Your task to perform on an android device: add a label to a message in the gmail app Image 0: 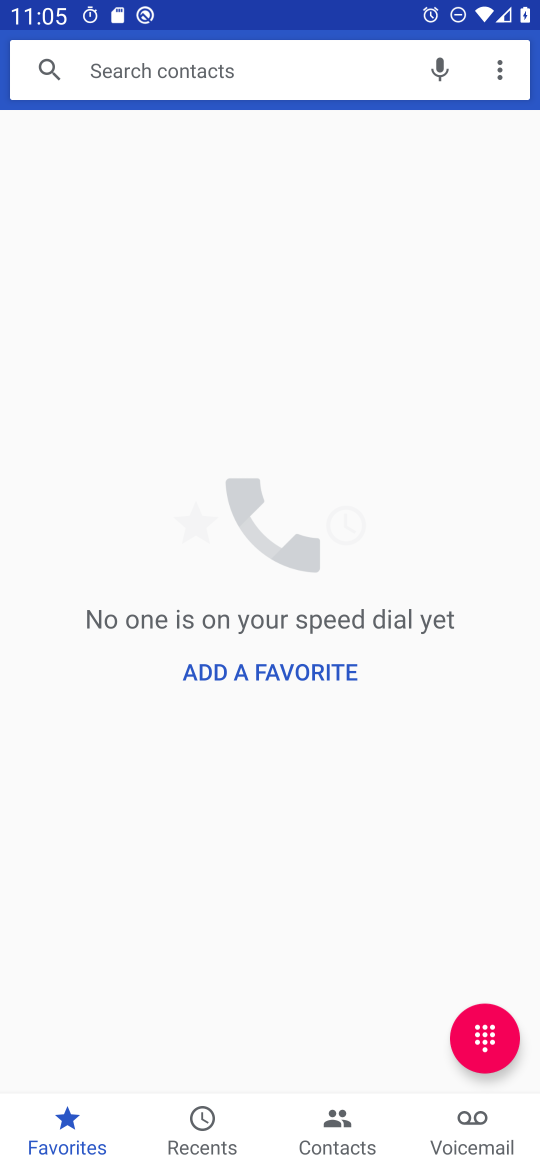
Step 0: press home button
Your task to perform on an android device: add a label to a message in the gmail app Image 1: 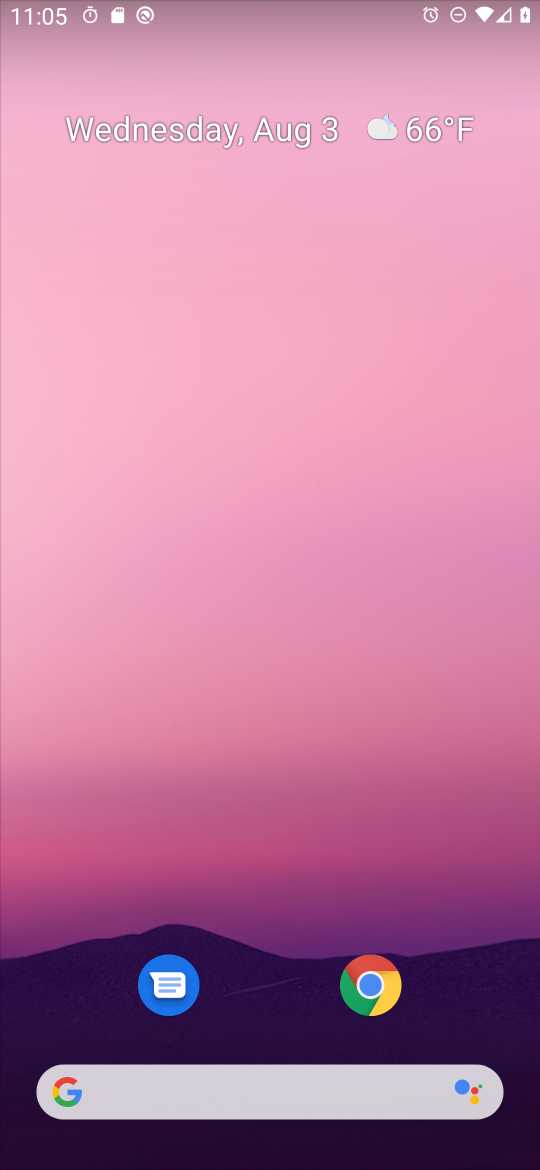
Step 1: drag from (246, 895) to (238, 404)
Your task to perform on an android device: add a label to a message in the gmail app Image 2: 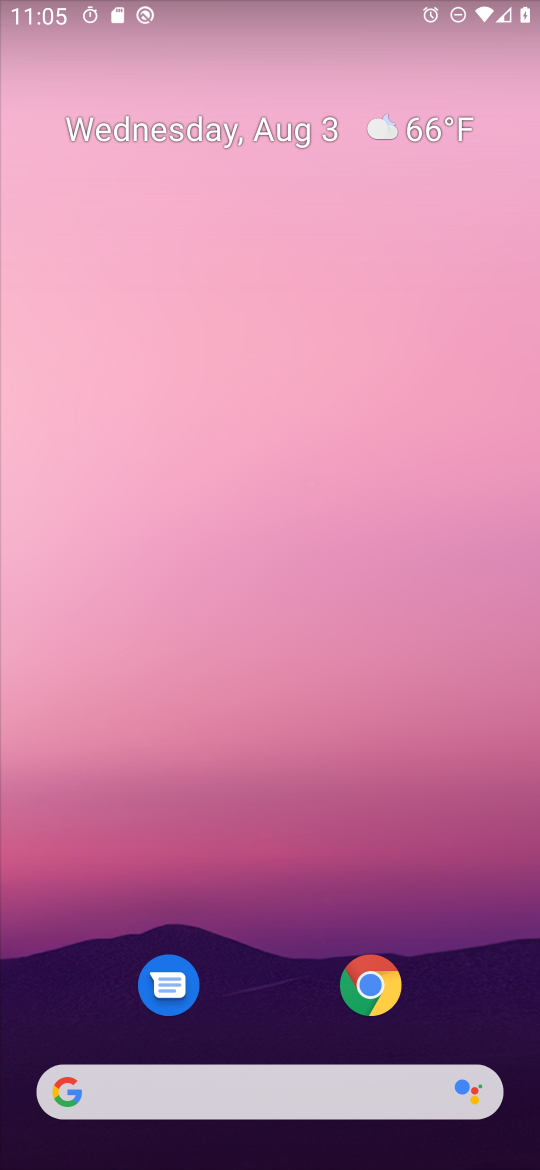
Step 2: drag from (280, 802) to (280, 267)
Your task to perform on an android device: add a label to a message in the gmail app Image 3: 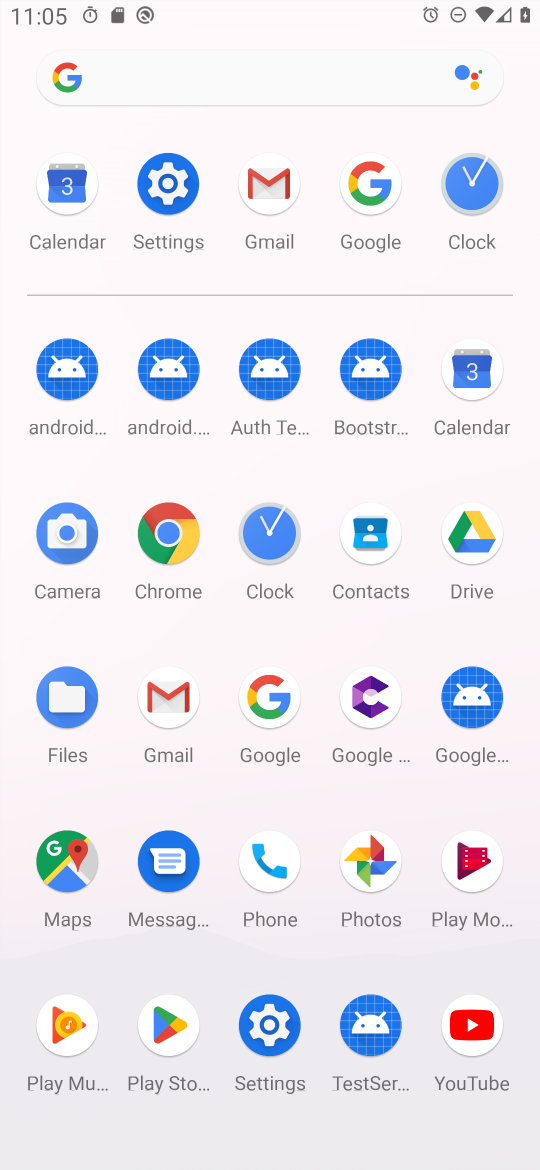
Step 3: click (263, 193)
Your task to perform on an android device: add a label to a message in the gmail app Image 4: 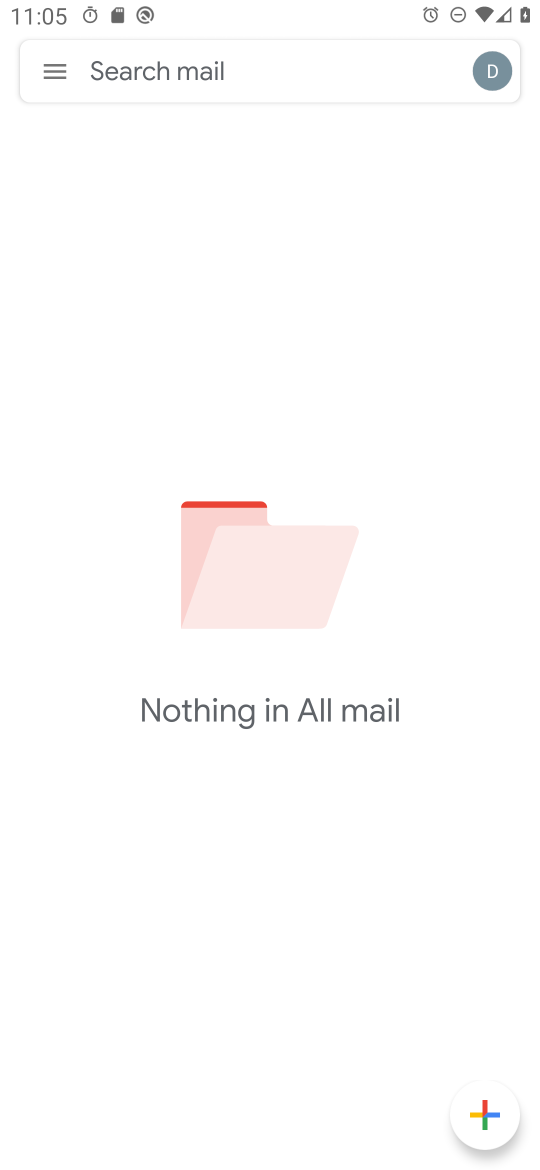
Step 4: click (69, 77)
Your task to perform on an android device: add a label to a message in the gmail app Image 5: 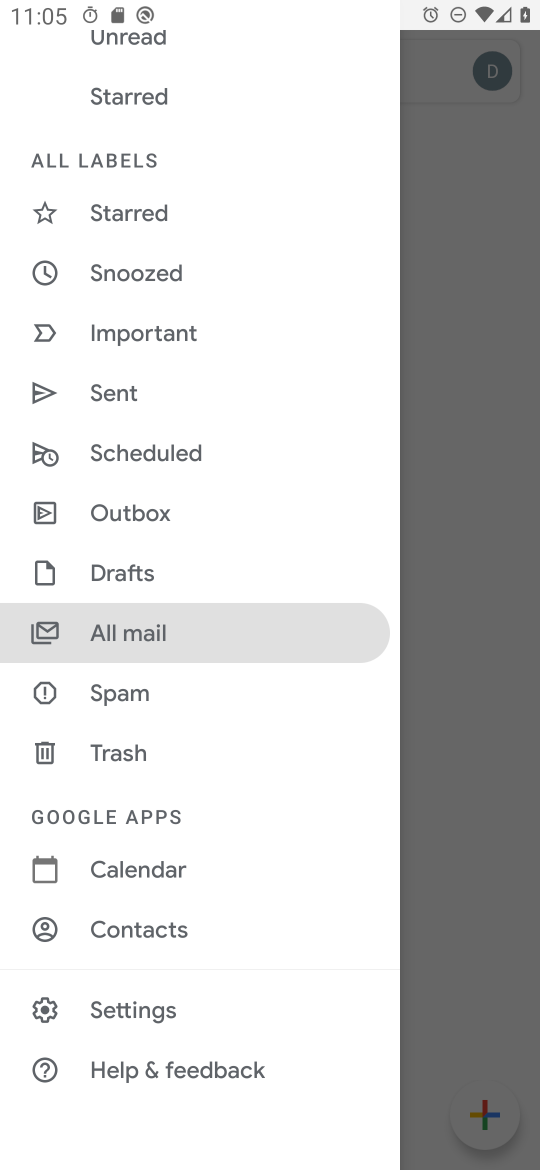
Step 5: click (182, 640)
Your task to perform on an android device: add a label to a message in the gmail app Image 6: 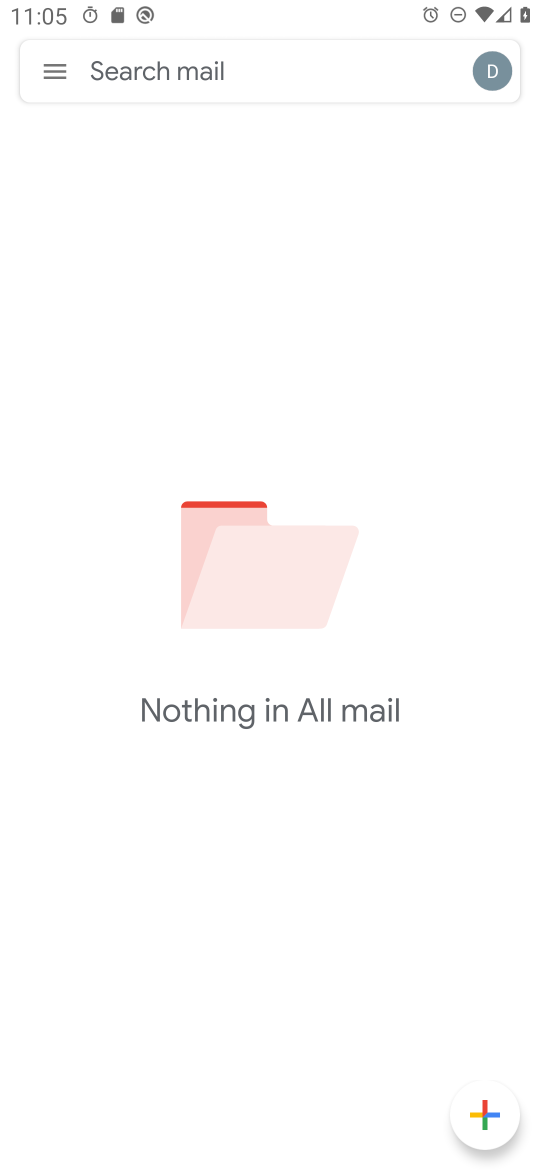
Step 6: task complete